Your task to perform on an android device: Open settings on Google Maps Image 0: 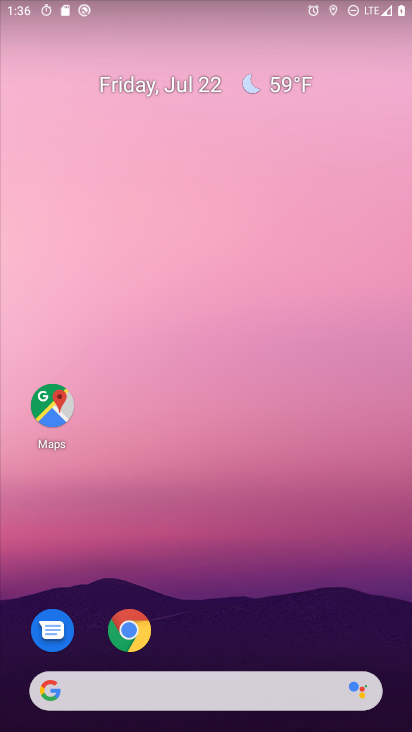
Step 0: drag from (227, 664) to (207, 128)
Your task to perform on an android device: Open settings on Google Maps Image 1: 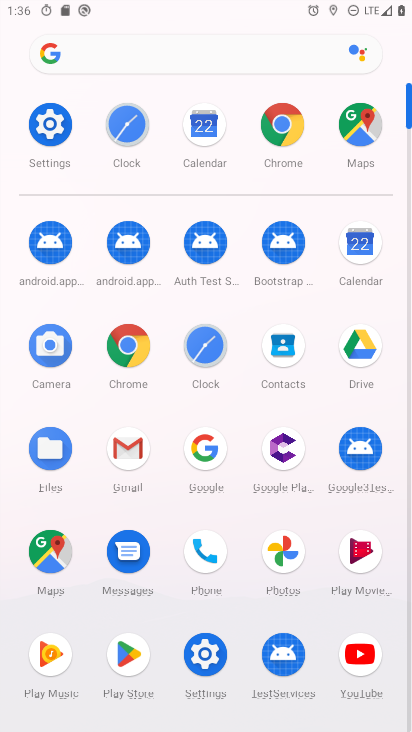
Step 1: click (357, 123)
Your task to perform on an android device: Open settings on Google Maps Image 2: 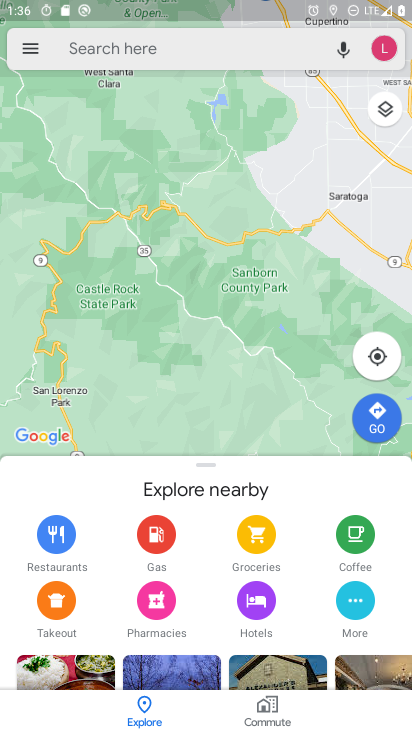
Step 2: click (25, 55)
Your task to perform on an android device: Open settings on Google Maps Image 3: 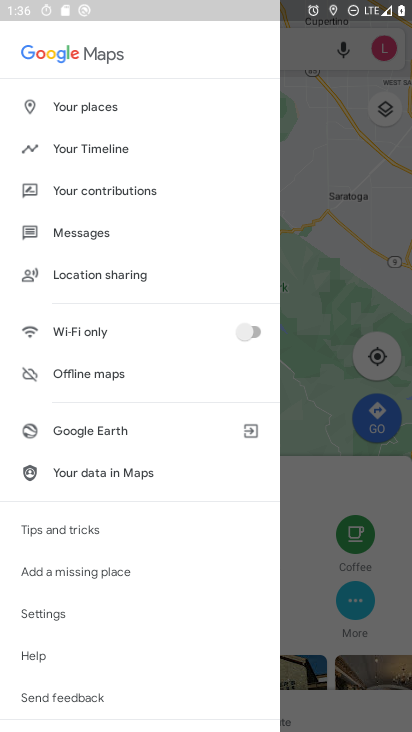
Step 3: click (35, 613)
Your task to perform on an android device: Open settings on Google Maps Image 4: 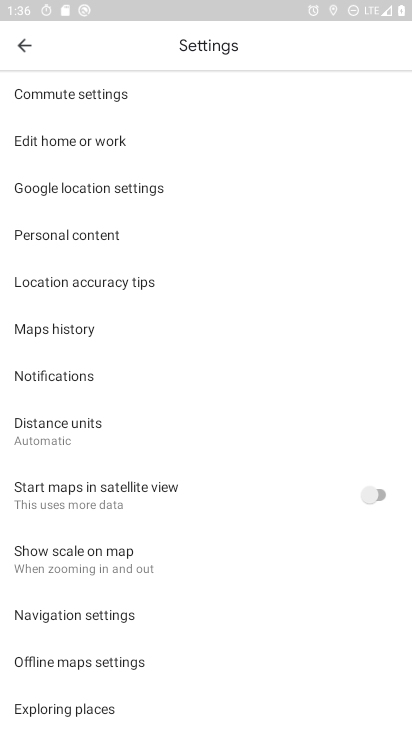
Step 4: task complete